Your task to perform on an android device: Go to Android settings Image 0: 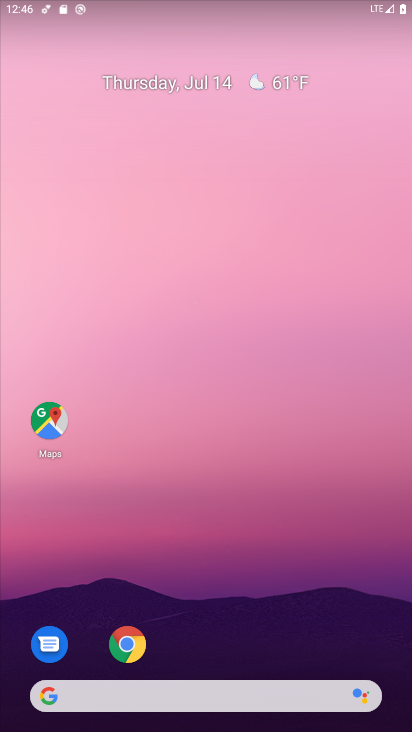
Step 0: drag from (199, 648) to (199, 4)
Your task to perform on an android device: Go to Android settings Image 1: 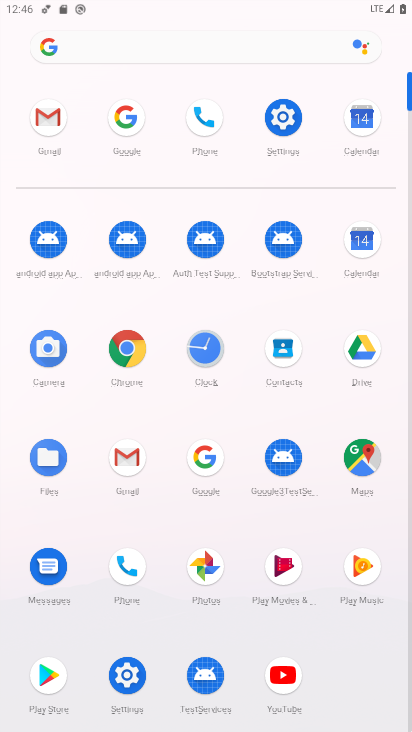
Step 1: click (284, 113)
Your task to perform on an android device: Go to Android settings Image 2: 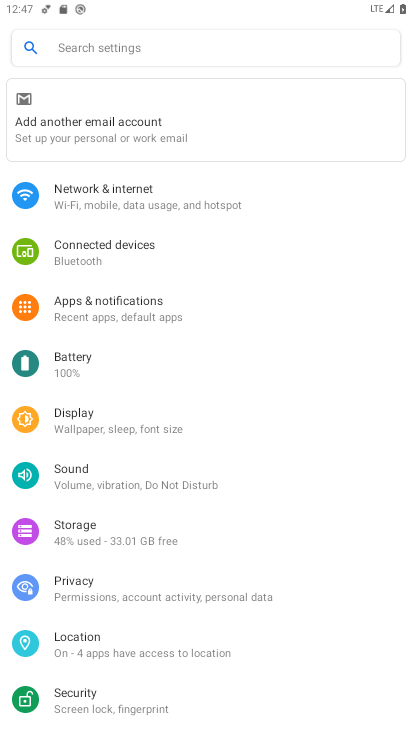
Step 2: drag from (142, 613) to (127, 125)
Your task to perform on an android device: Go to Android settings Image 3: 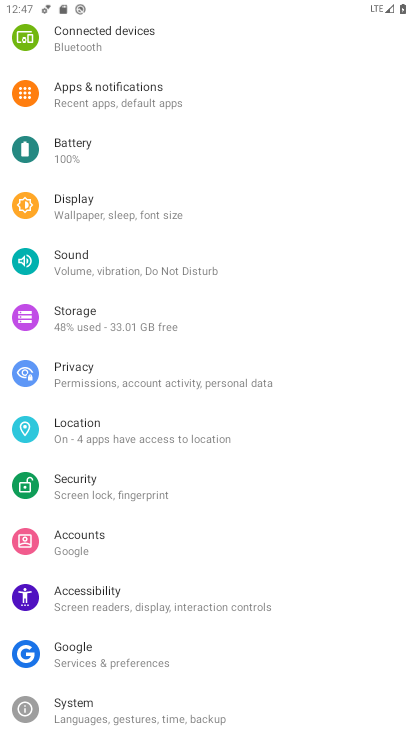
Step 3: click (142, 717)
Your task to perform on an android device: Go to Android settings Image 4: 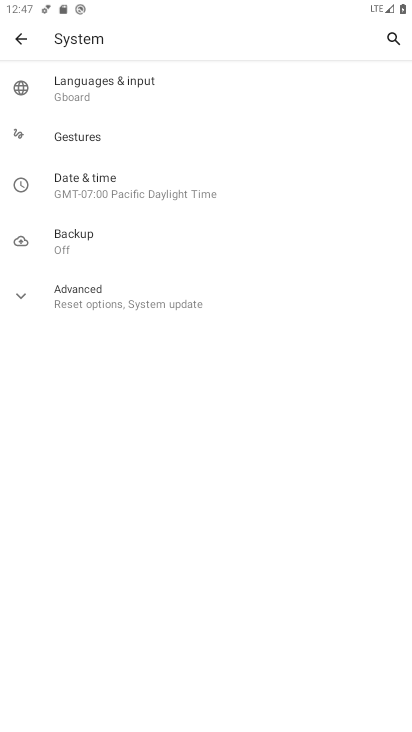
Step 4: task complete